Your task to perform on an android device: install app "Google Chat" Image 0: 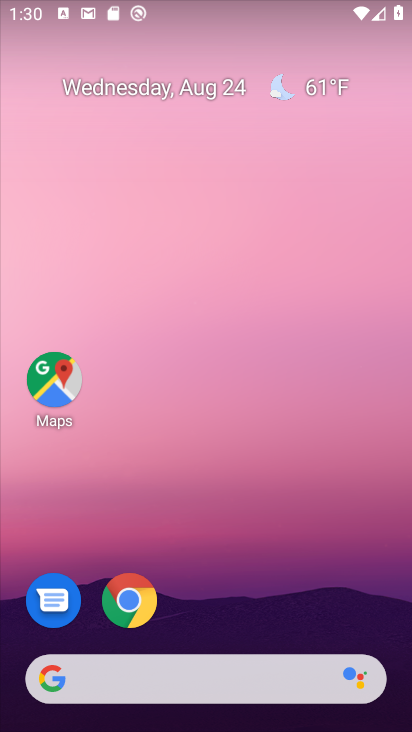
Step 0: drag from (347, 636) to (201, 0)
Your task to perform on an android device: install app "Google Chat" Image 1: 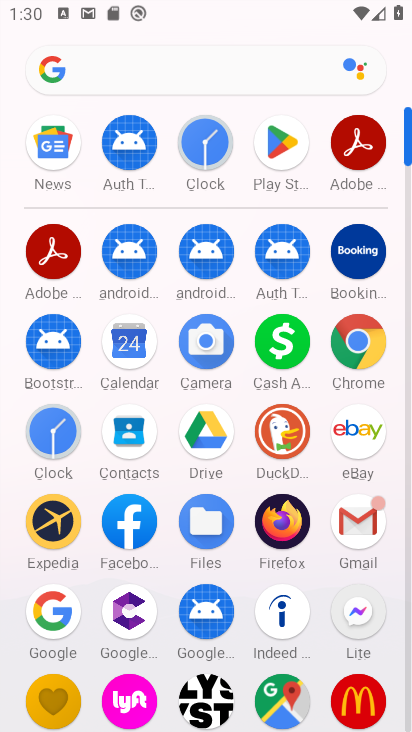
Step 1: click (268, 154)
Your task to perform on an android device: install app "Google Chat" Image 2: 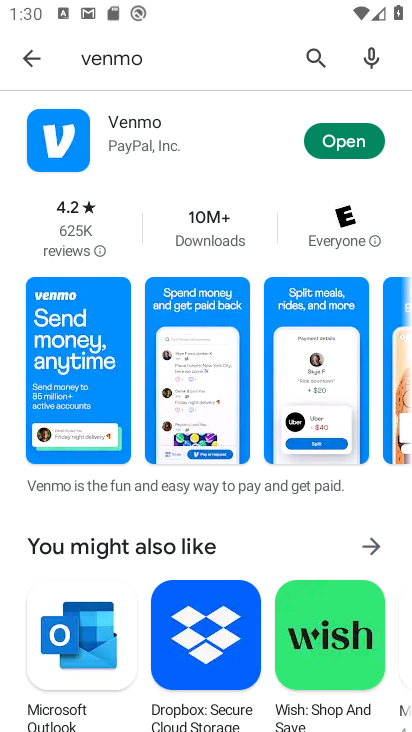
Step 2: click (307, 68)
Your task to perform on an android device: install app "Google Chat" Image 3: 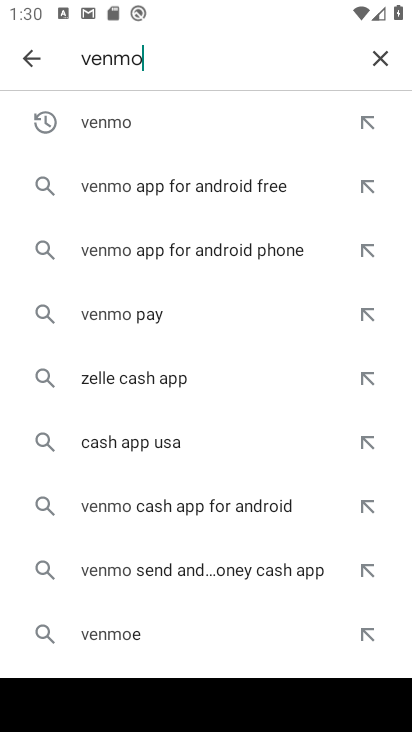
Step 3: click (372, 57)
Your task to perform on an android device: install app "Google Chat" Image 4: 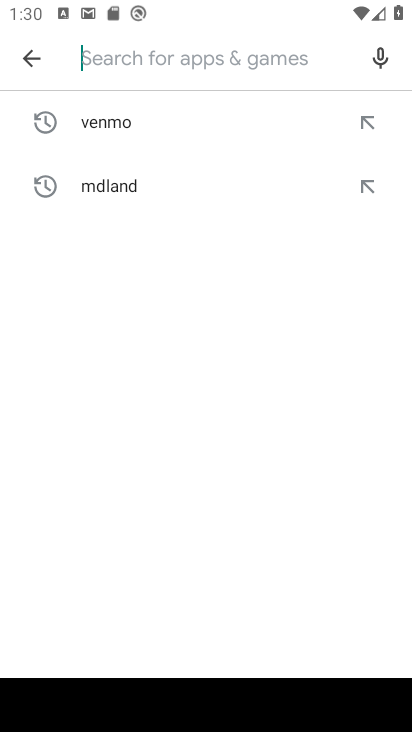
Step 4: type "chat"
Your task to perform on an android device: install app "Google Chat" Image 5: 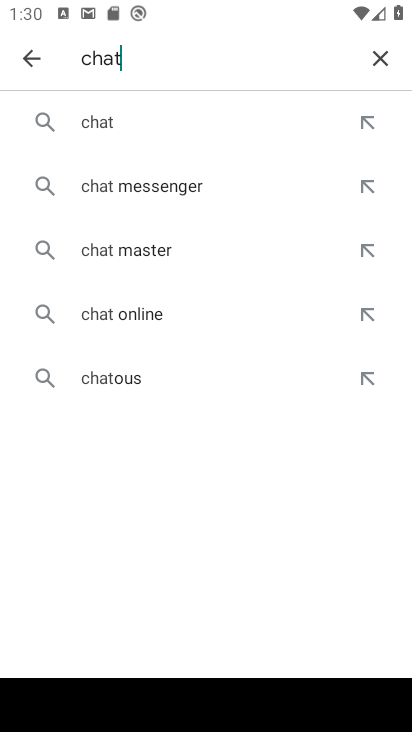
Step 5: click (252, 122)
Your task to perform on an android device: install app "Google Chat" Image 6: 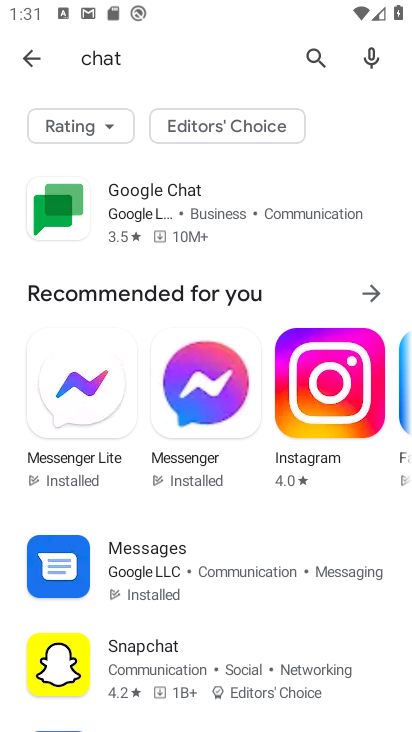
Step 6: click (199, 185)
Your task to perform on an android device: install app "Google Chat" Image 7: 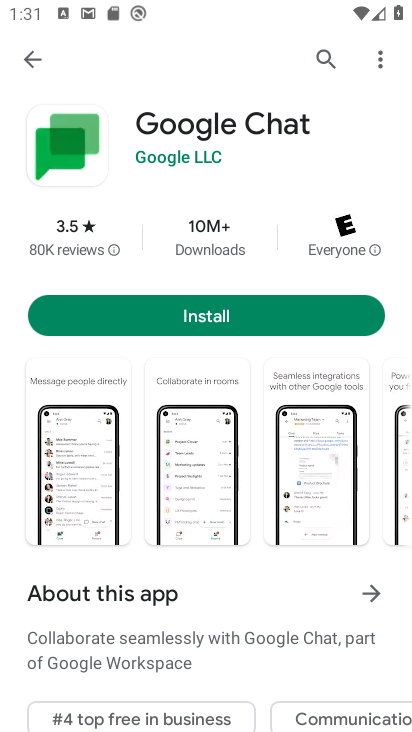
Step 7: click (207, 298)
Your task to perform on an android device: install app "Google Chat" Image 8: 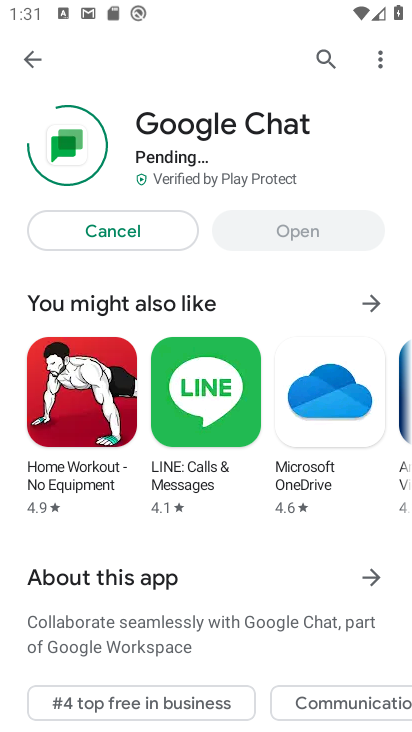
Step 8: task complete